Your task to perform on an android device: change notification settings in the gmail app Image 0: 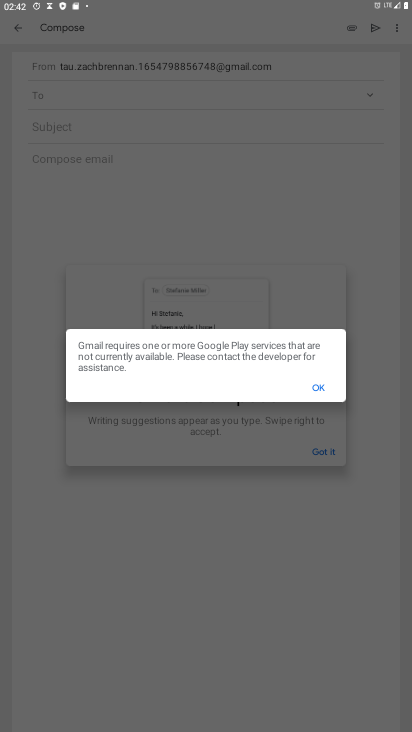
Step 0: press home button
Your task to perform on an android device: change notification settings in the gmail app Image 1: 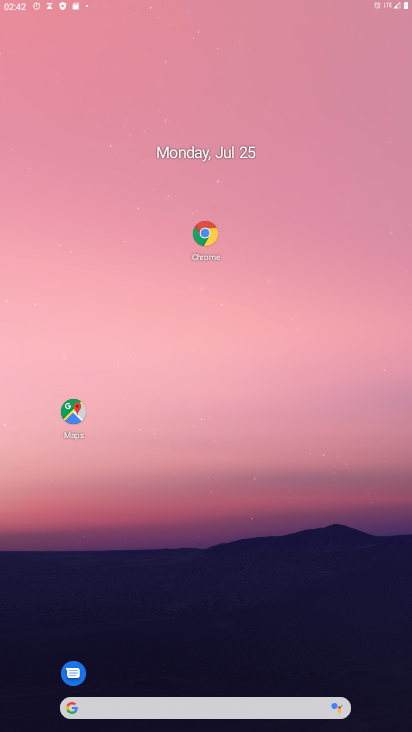
Step 1: drag from (211, 712) to (358, 65)
Your task to perform on an android device: change notification settings in the gmail app Image 2: 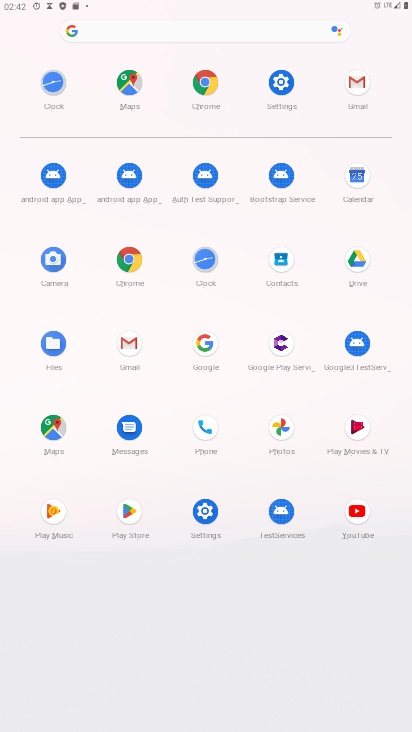
Step 2: click (128, 338)
Your task to perform on an android device: change notification settings in the gmail app Image 3: 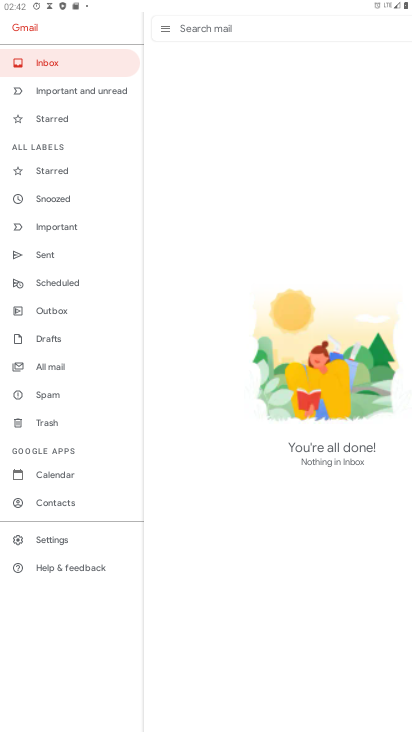
Step 3: click (57, 539)
Your task to perform on an android device: change notification settings in the gmail app Image 4: 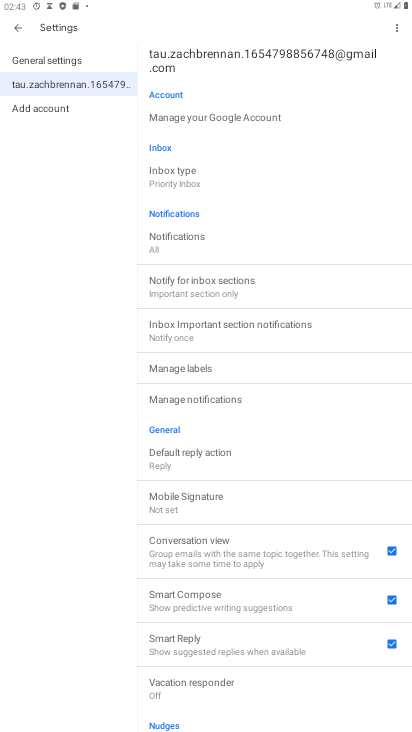
Step 4: click (241, 393)
Your task to perform on an android device: change notification settings in the gmail app Image 5: 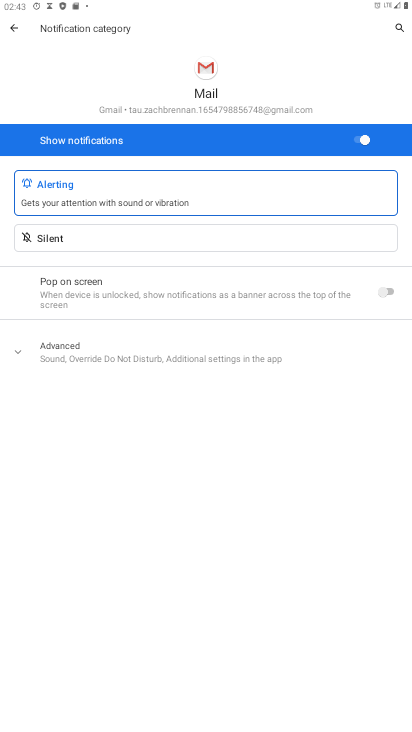
Step 5: click (359, 144)
Your task to perform on an android device: change notification settings in the gmail app Image 6: 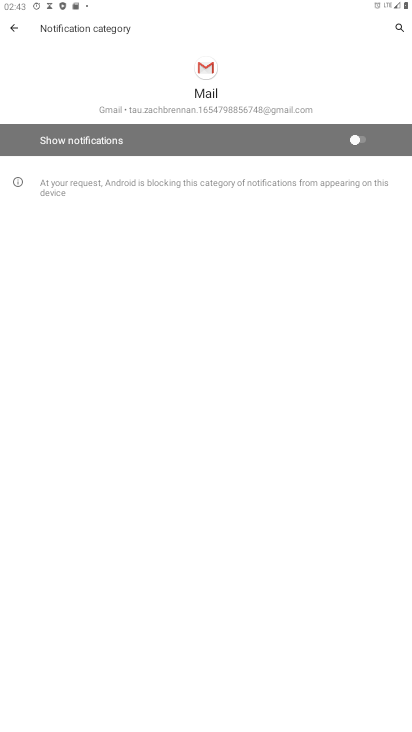
Step 6: task complete